Your task to perform on an android device: Search for a nice rug on Crate & Barrel Image 0: 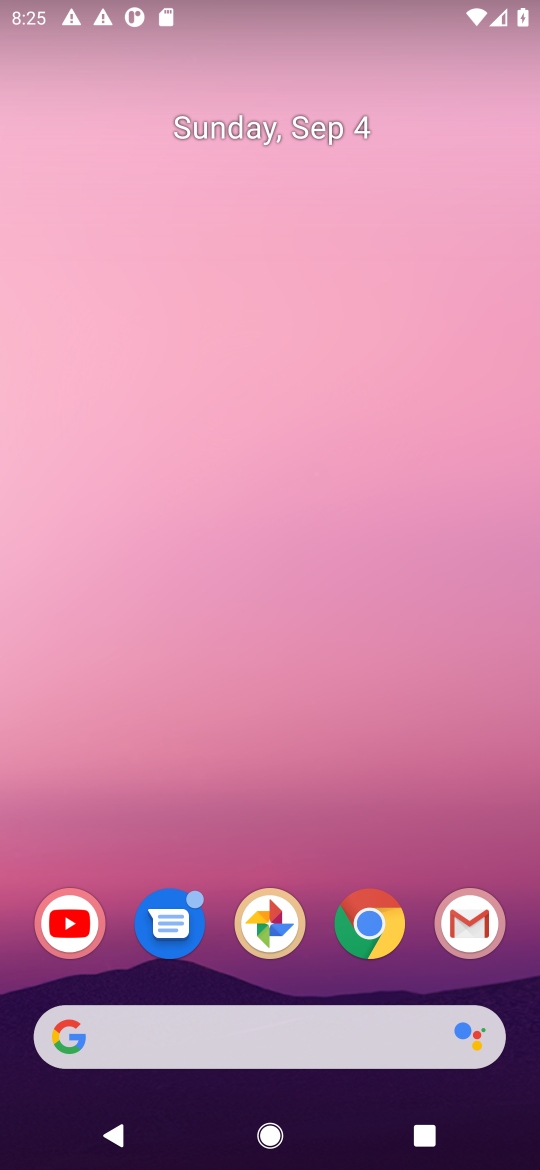
Step 0: click (361, 937)
Your task to perform on an android device: Search for a nice rug on Crate & Barrel Image 1: 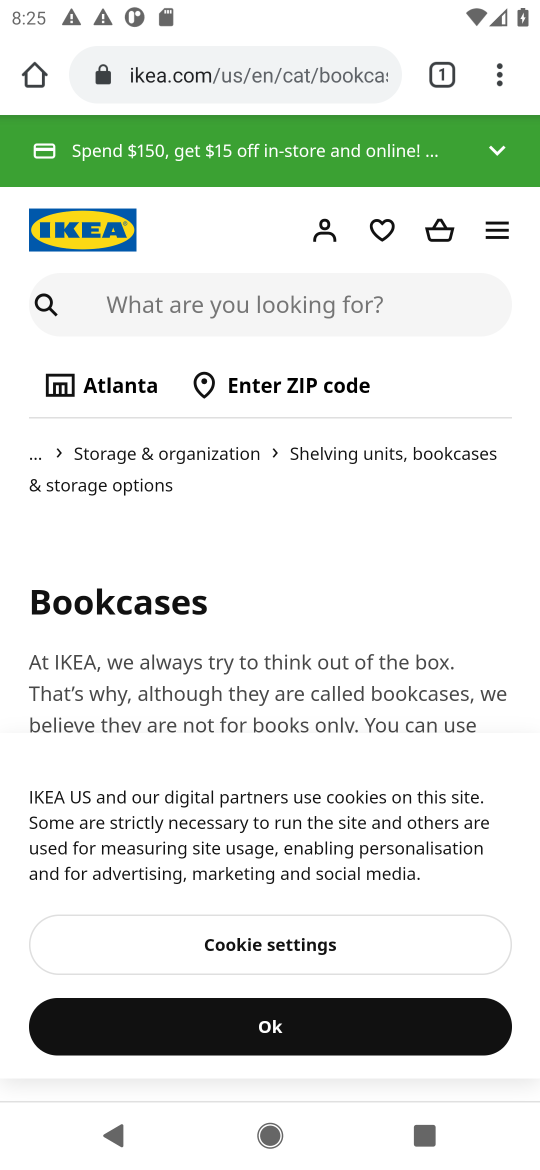
Step 1: click (260, 77)
Your task to perform on an android device: Search for a nice rug on Crate & Barrel Image 2: 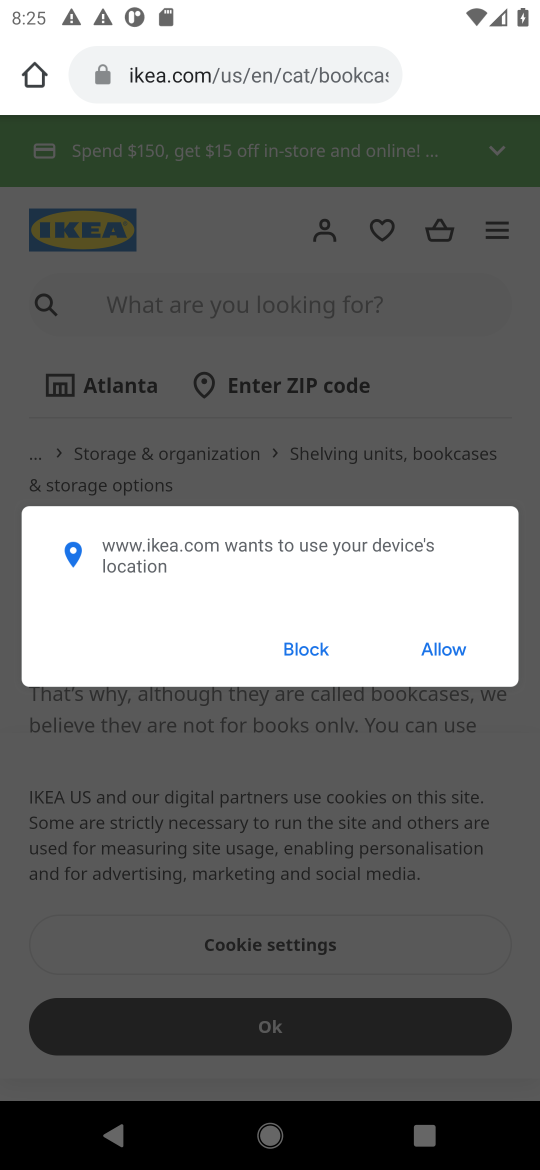
Step 2: type "crate and barrel"
Your task to perform on an android device: Search for a nice rug on Crate & Barrel Image 3: 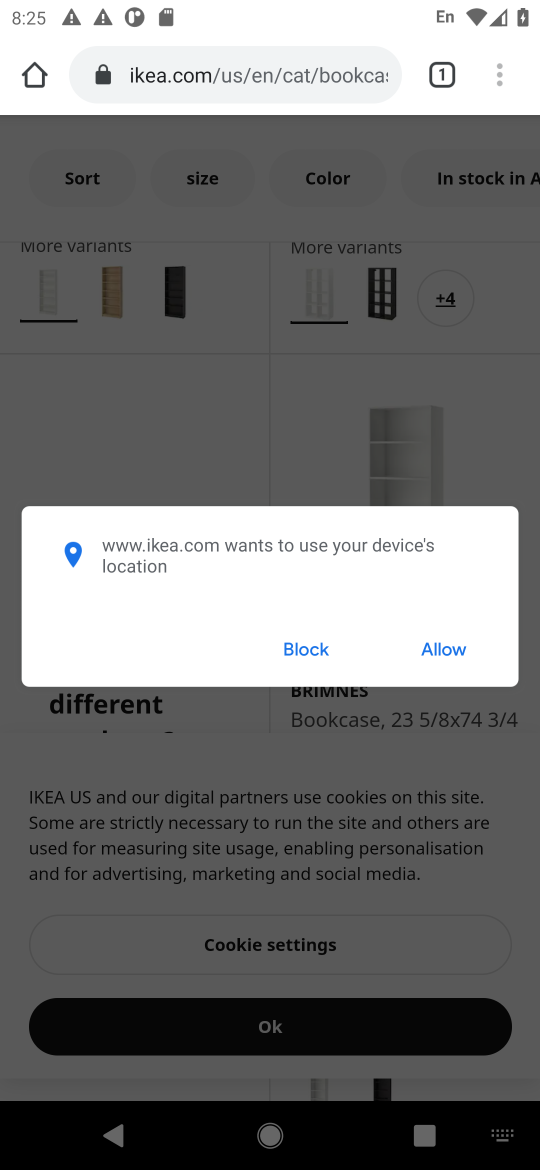
Step 3: click (318, 86)
Your task to perform on an android device: Search for a nice rug on Crate & Barrel Image 4: 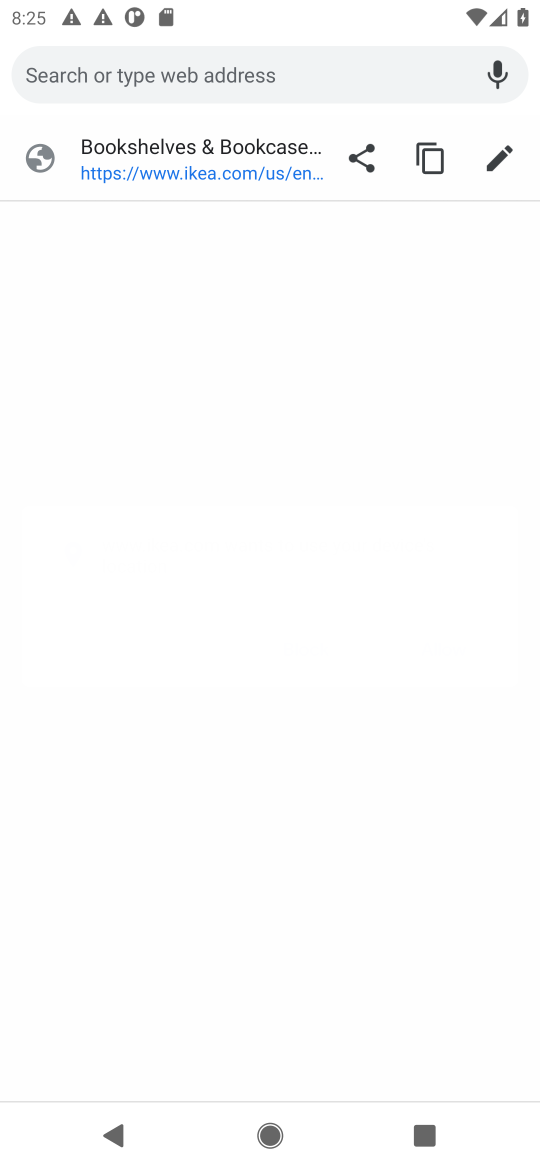
Step 4: type "crate and  barrel"
Your task to perform on an android device: Search for a nice rug on Crate & Barrel Image 5: 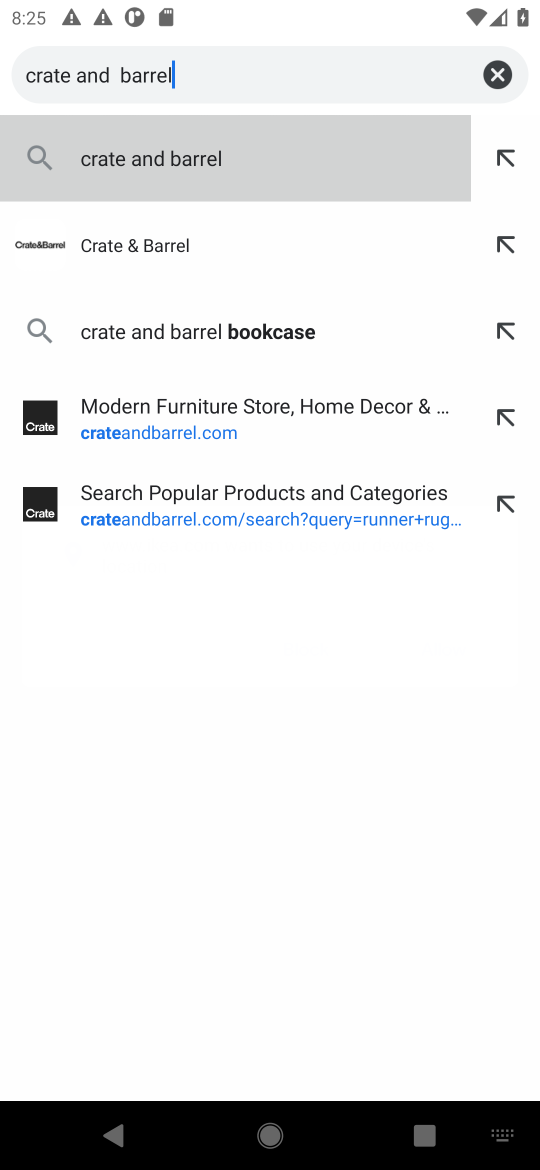
Step 5: click (220, 240)
Your task to perform on an android device: Search for a nice rug on Crate & Barrel Image 6: 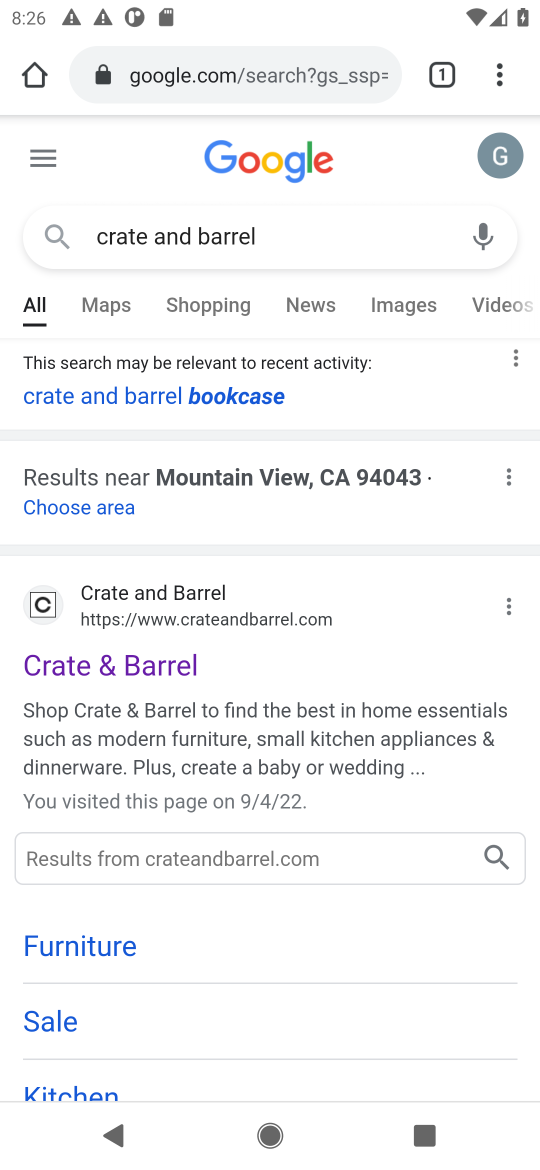
Step 6: click (148, 668)
Your task to perform on an android device: Search for a nice rug on Crate & Barrel Image 7: 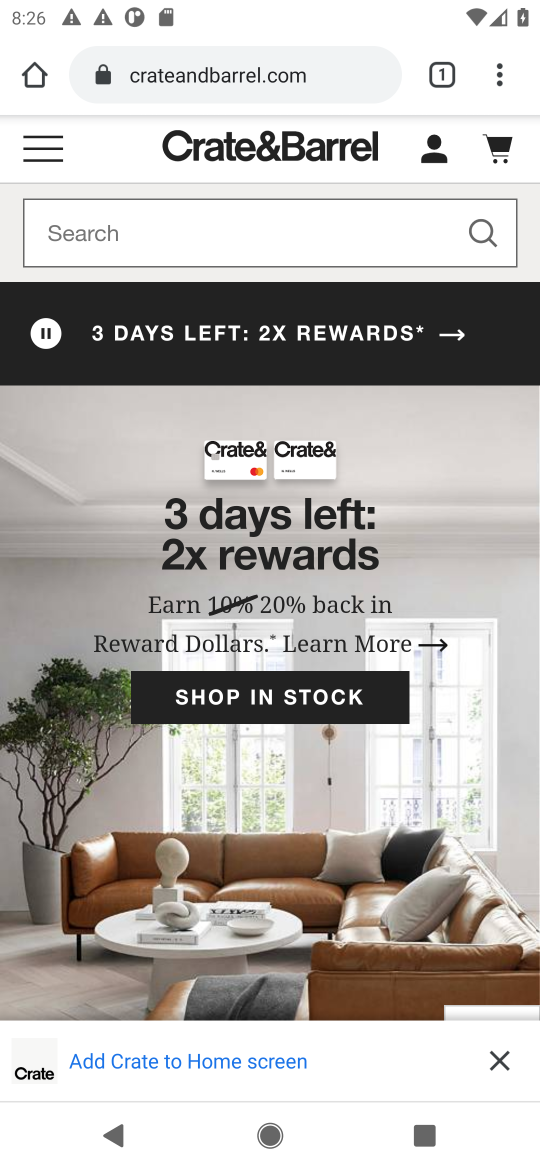
Step 7: click (205, 247)
Your task to perform on an android device: Search for a nice rug on Crate & Barrel Image 8: 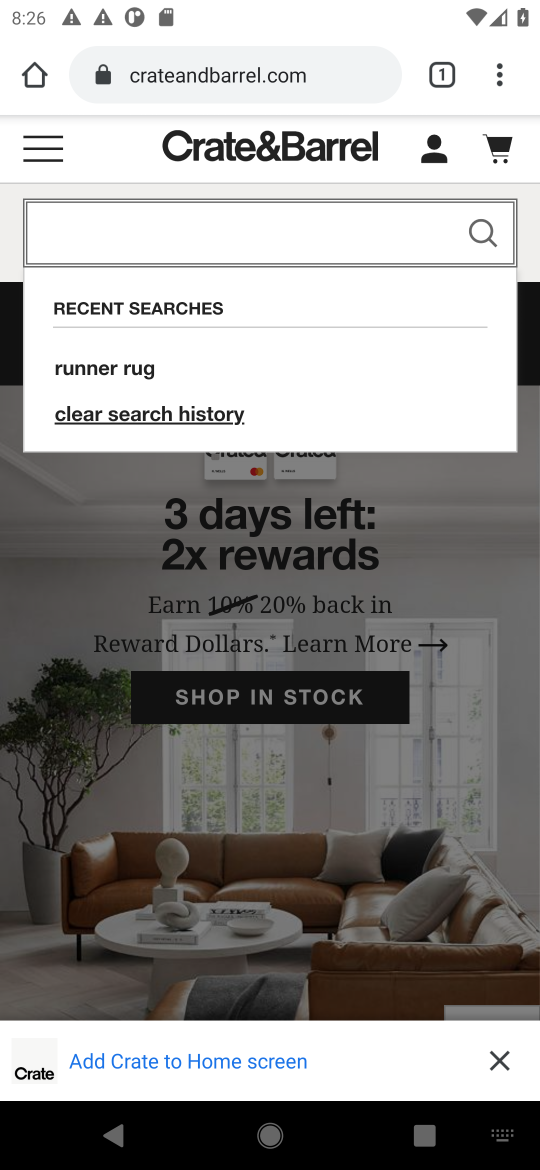
Step 8: type "nice rug"
Your task to perform on an android device: Search for a nice rug on Crate & Barrel Image 9: 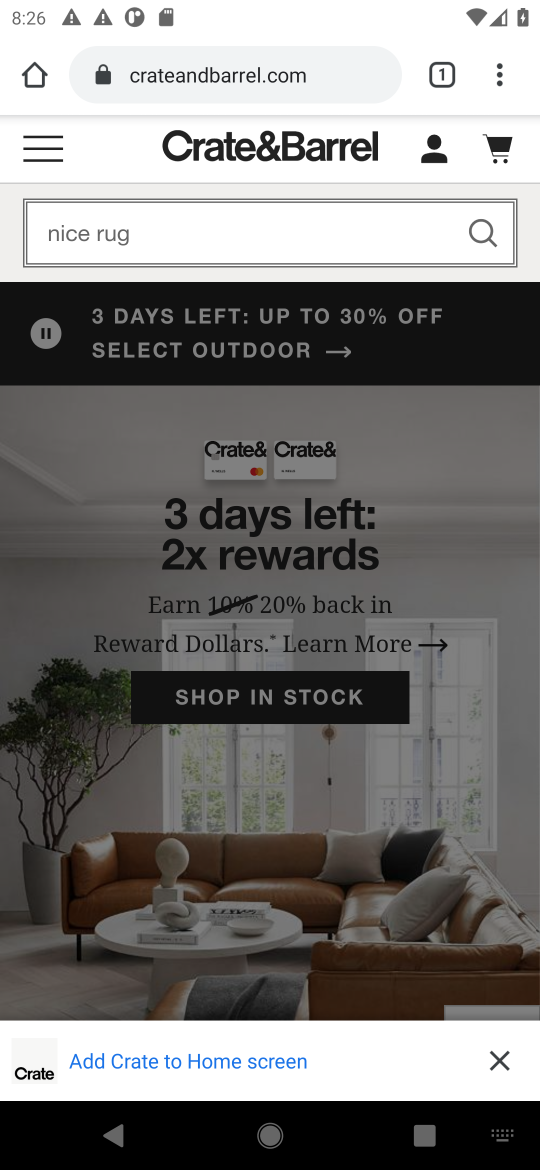
Step 9: click (490, 241)
Your task to perform on an android device: Search for a nice rug on Crate & Barrel Image 10: 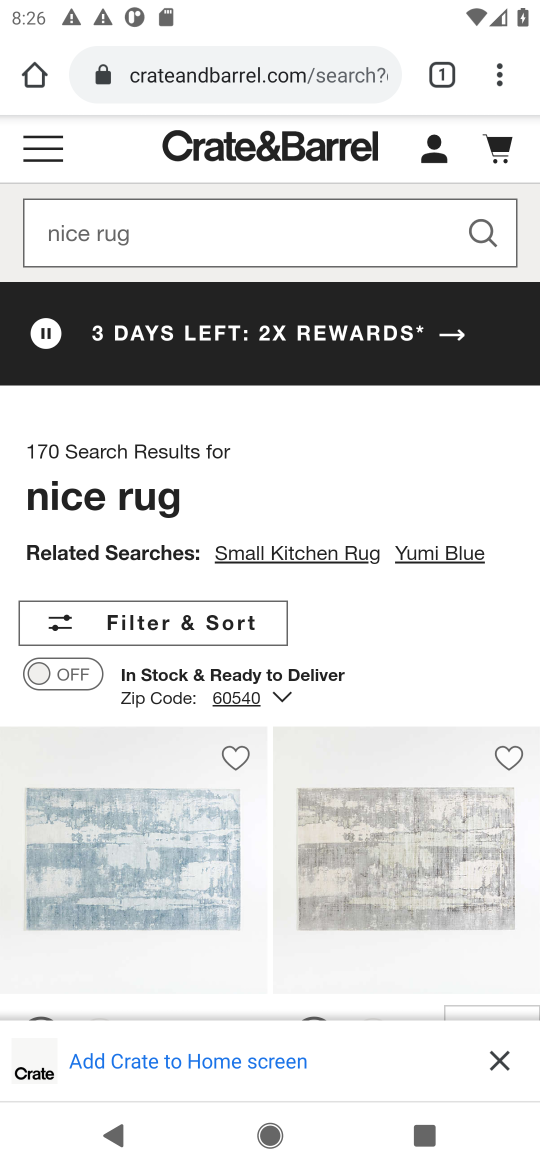
Step 10: task complete